Your task to perform on an android device: Is it going to rain tomorrow? Image 0: 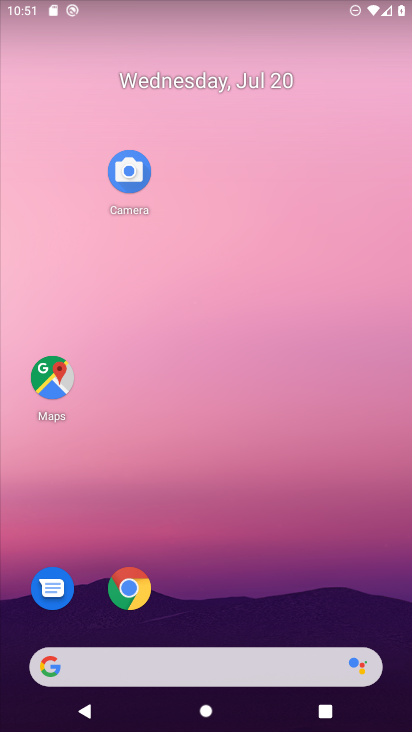
Step 0: click (45, 662)
Your task to perform on an android device: Is it going to rain tomorrow? Image 1: 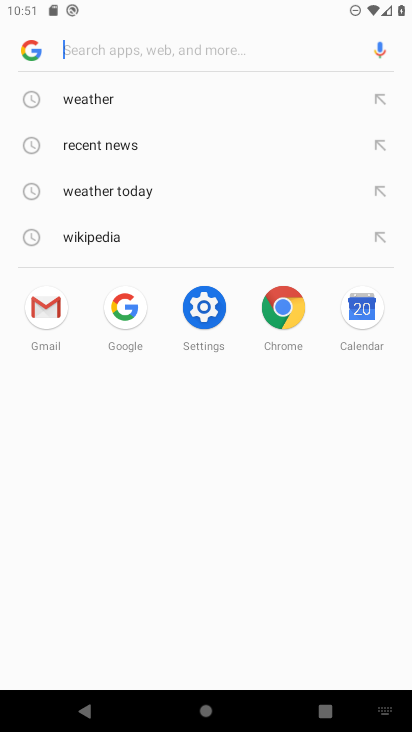
Step 1: type "Is it going to rain tomorrow?"
Your task to perform on an android device: Is it going to rain tomorrow? Image 2: 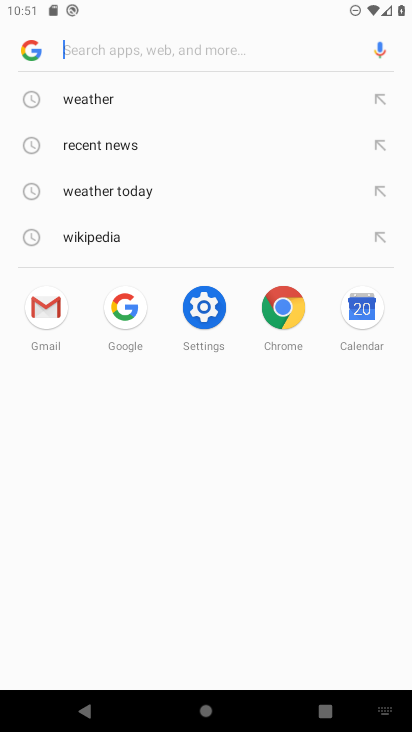
Step 2: click (92, 47)
Your task to perform on an android device: Is it going to rain tomorrow? Image 3: 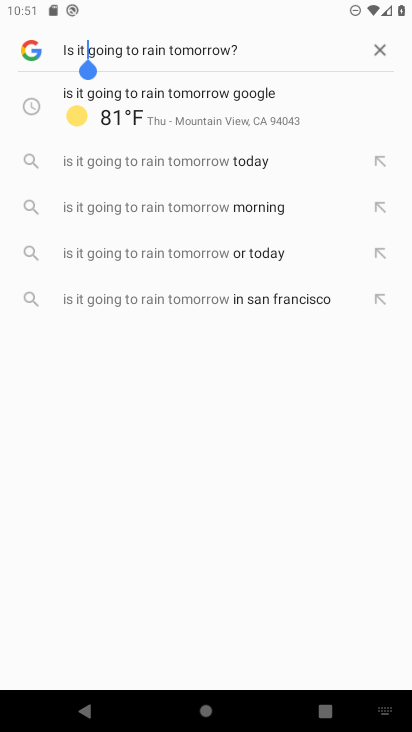
Step 3: press enter
Your task to perform on an android device: Is it going to rain tomorrow? Image 4: 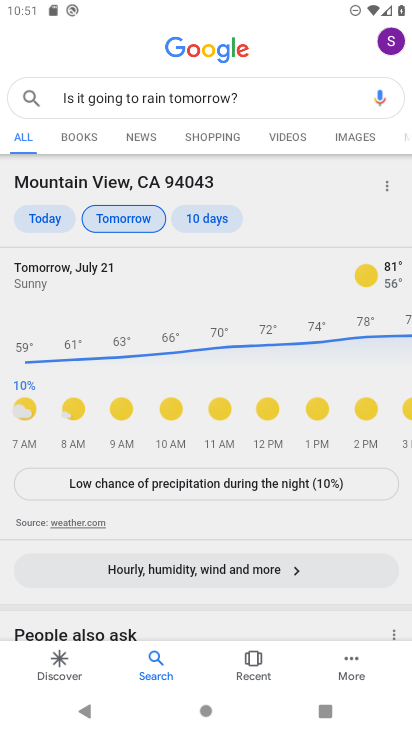
Step 4: task complete